Your task to perform on an android device: delete the emails in spam in the gmail app Image 0: 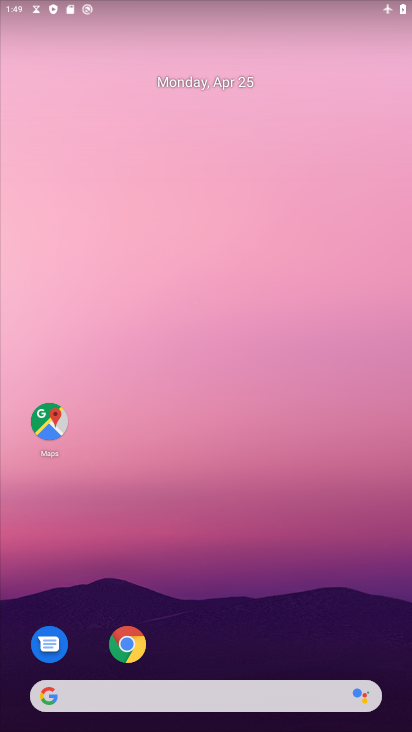
Step 0: drag from (373, 630) to (376, 123)
Your task to perform on an android device: delete the emails in spam in the gmail app Image 1: 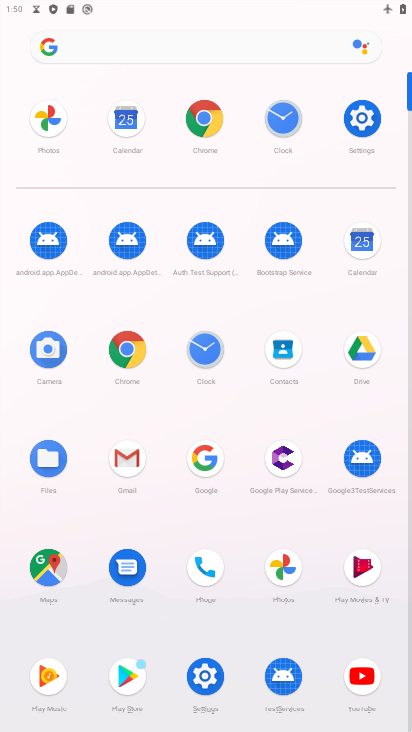
Step 1: click (126, 463)
Your task to perform on an android device: delete the emails in spam in the gmail app Image 2: 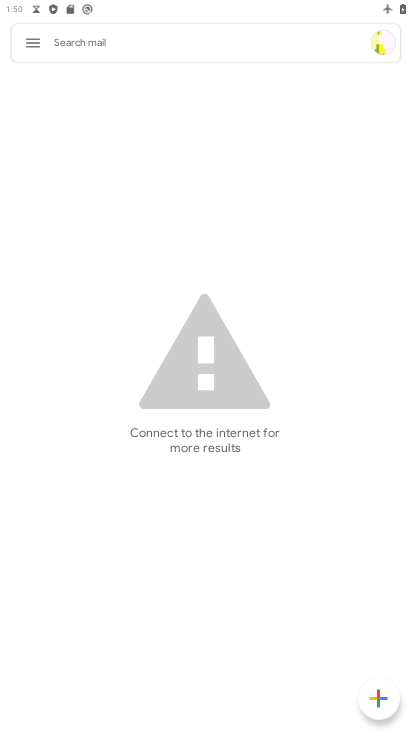
Step 2: click (28, 47)
Your task to perform on an android device: delete the emails in spam in the gmail app Image 3: 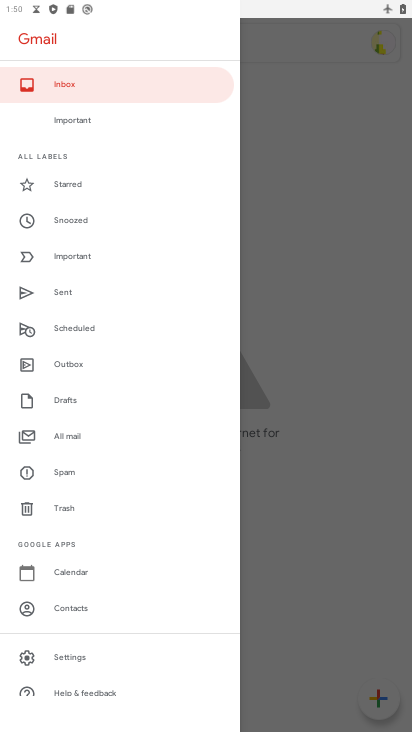
Step 3: click (78, 474)
Your task to perform on an android device: delete the emails in spam in the gmail app Image 4: 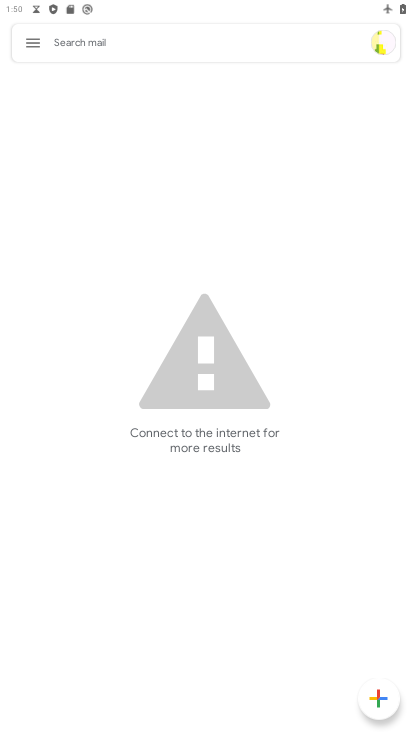
Step 4: task complete